Your task to perform on an android device: snooze an email in the gmail app Image 0: 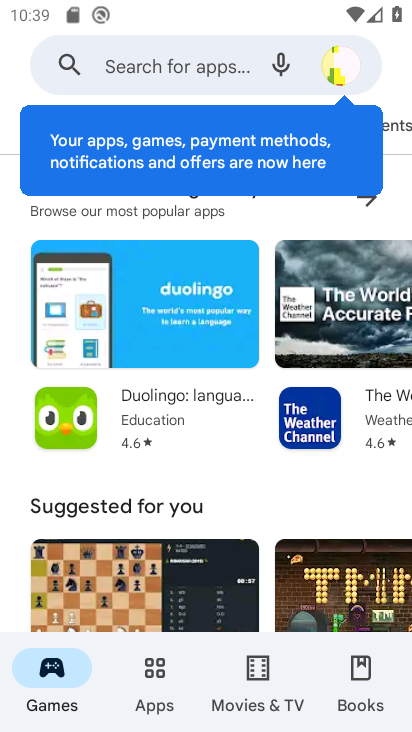
Step 0: press home button
Your task to perform on an android device: snooze an email in the gmail app Image 1: 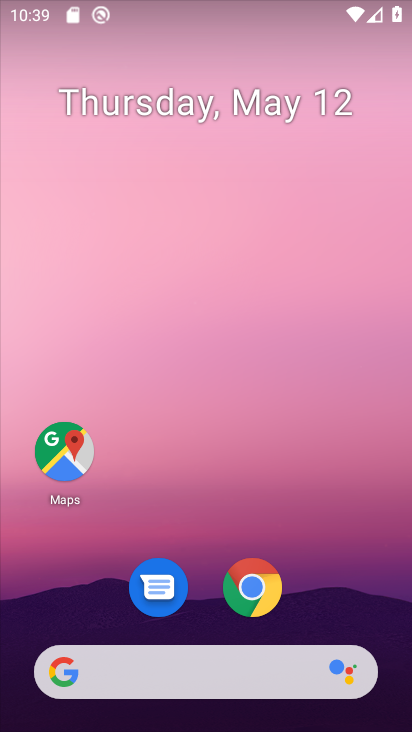
Step 1: drag from (302, 578) to (320, 59)
Your task to perform on an android device: snooze an email in the gmail app Image 2: 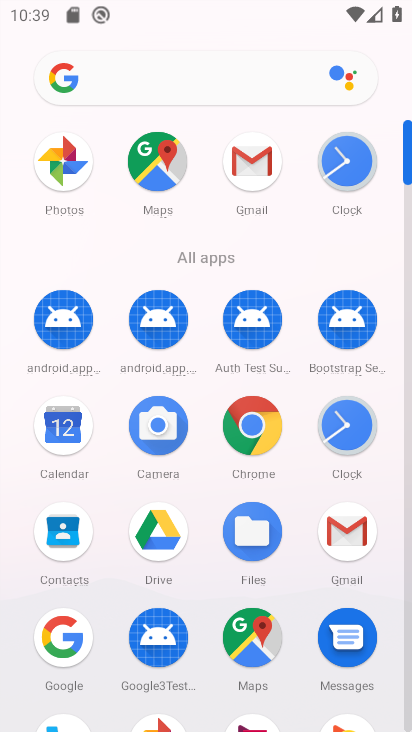
Step 2: click (246, 162)
Your task to perform on an android device: snooze an email in the gmail app Image 3: 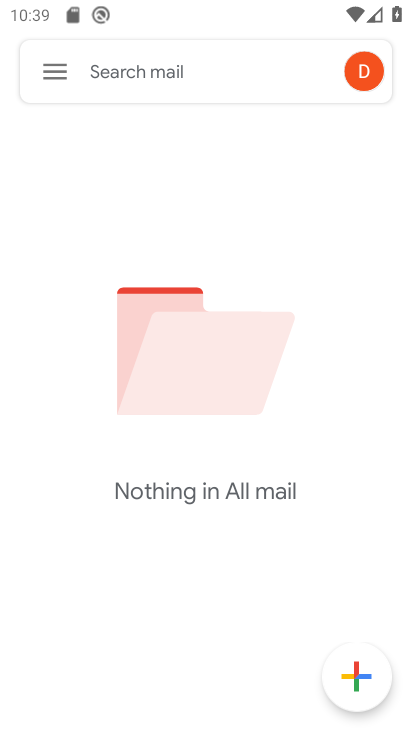
Step 3: task complete